Your task to perform on an android device: Search for vegetarian restaurants on Maps Image 0: 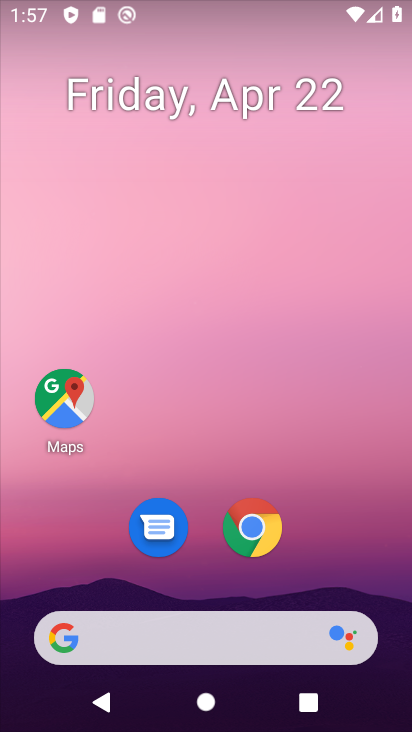
Step 0: drag from (298, 551) to (322, 117)
Your task to perform on an android device: Search for vegetarian restaurants on Maps Image 1: 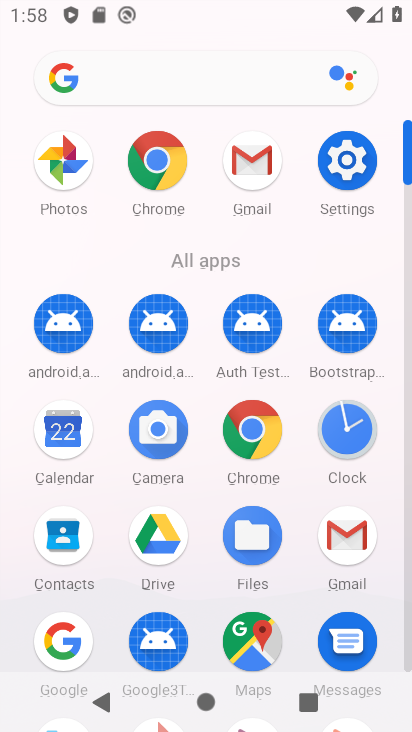
Step 1: drag from (315, 263) to (324, 26)
Your task to perform on an android device: Search for vegetarian restaurants on Maps Image 2: 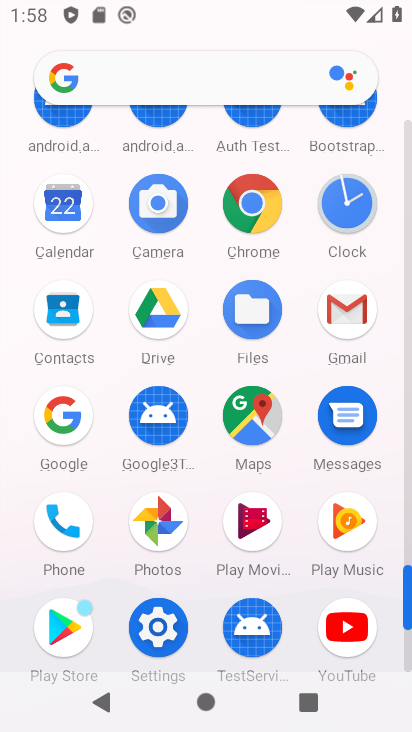
Step 2: click (253, 416)
Your task to perform on an android device: Search for vegetarian restaurants on Maps Image 3: 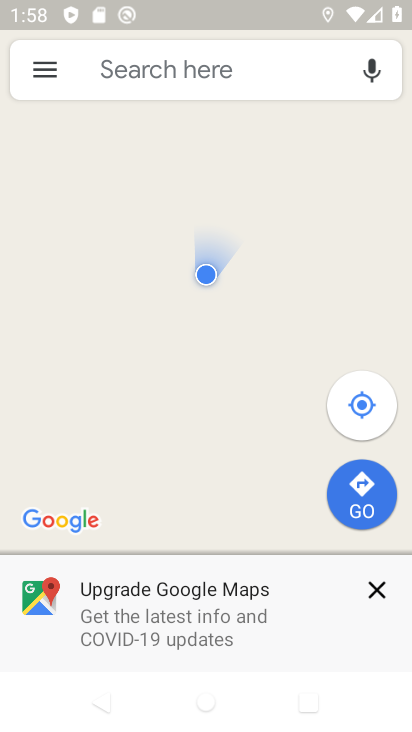
Step 3: click (102, 61)
Your task to perform on an android device: Search for vegetarian restaurants on Maps Image 4: 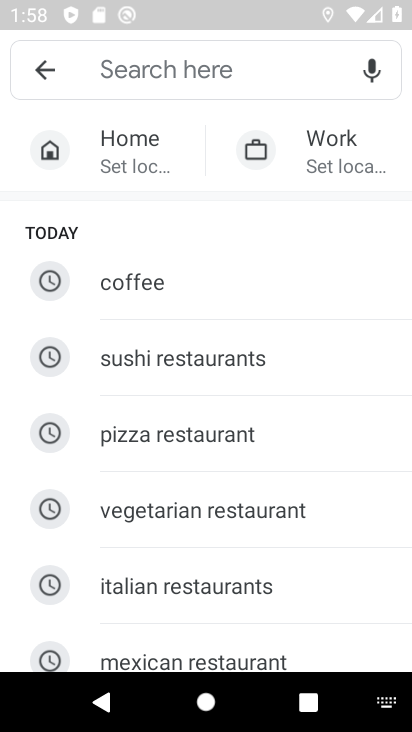
Step 4: type " vegetarian restaurants"
Your task to perform on an android device: Search for vegetarian restaurants on Maps Image 5: 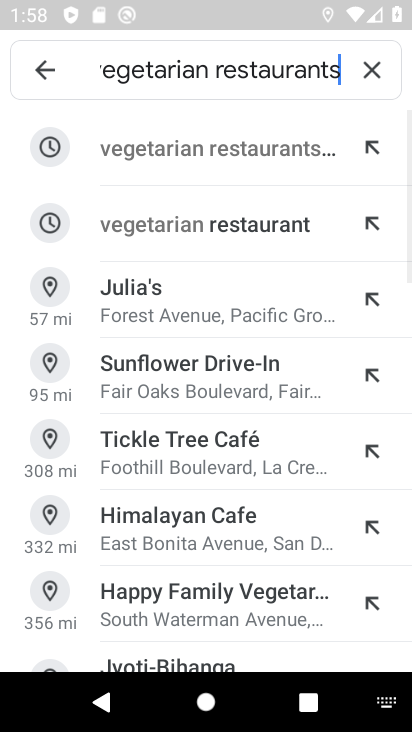
Step 5: click (271, 151)
Your task to perform on an android device: Search for vegetarian restaurants on Maps Image 6: 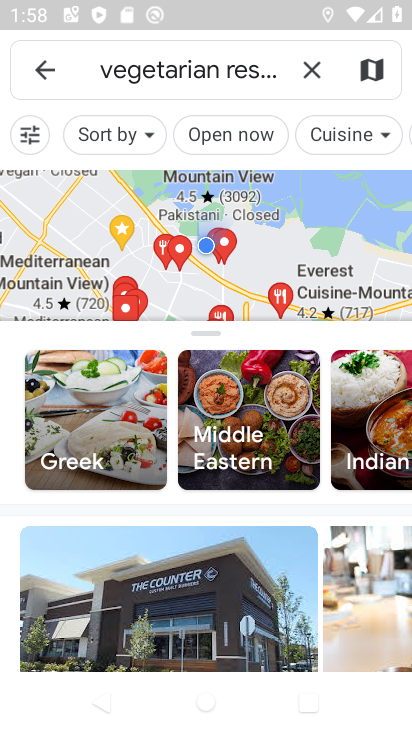
Step 6: task complete